Your task to perform on an android device: Open eBay Image 0: 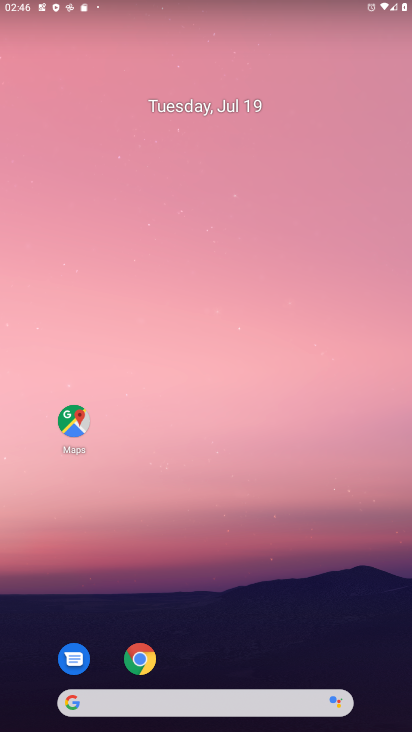
Step 0: click (123, 675)
Your task to perform on an android device: Open eBay Image 1: 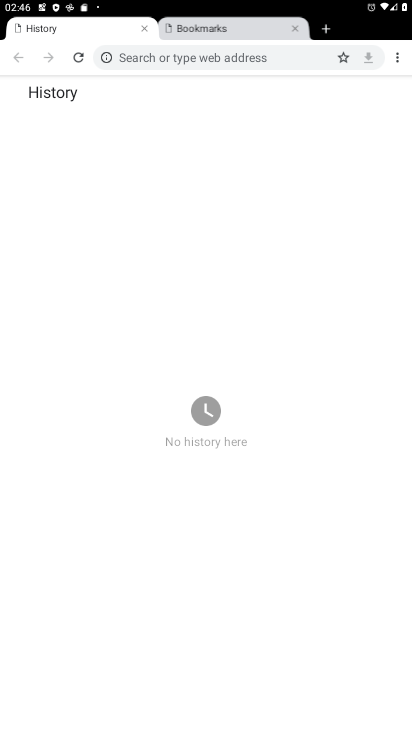
Step 1: click (239, 50)
Your task to perform on an android device: Open eBay Image 2: 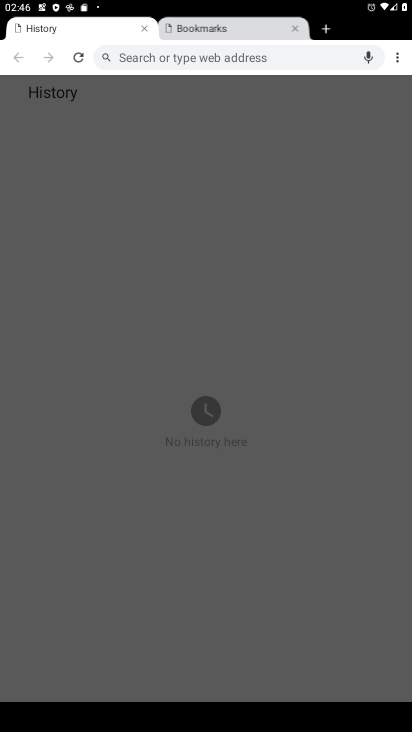
Step 2: type "eBay"
Your task to perform on an android device: Open eBay Image 3: 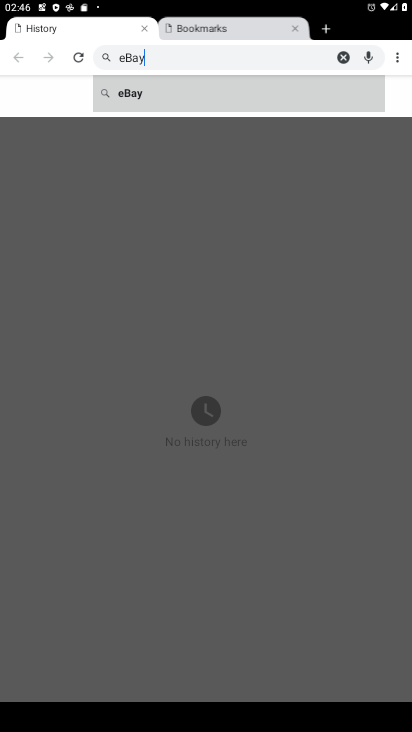
Step 3: type ""
Your task to perform on an android device: Open eBay Image 4: 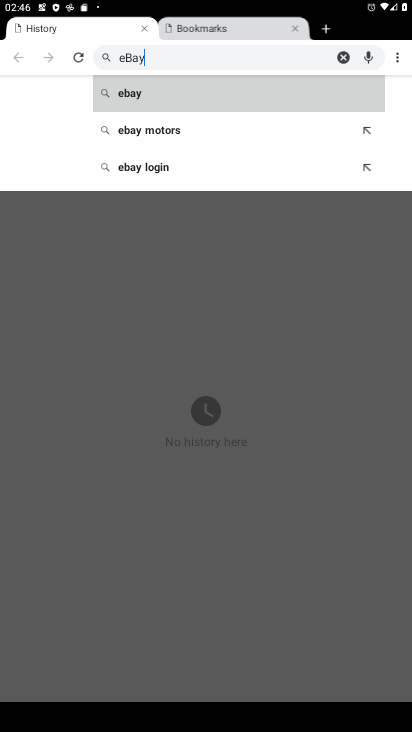
Step 4: click (135, 100)
Your task to perform on an android device: Open eBay Image 5: 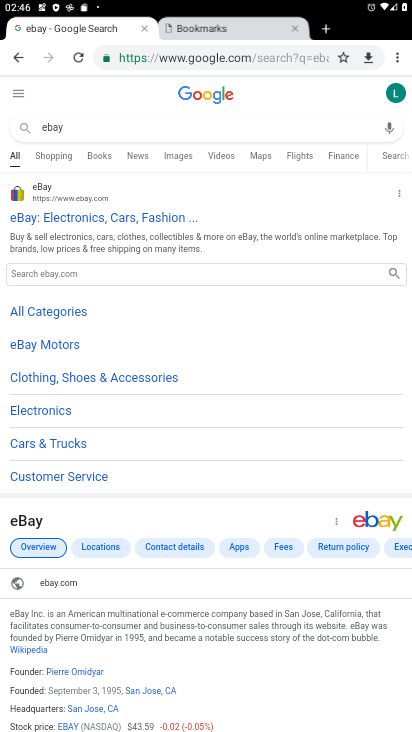
Step 5: click (84, 222)
Your task to perform on an android device: Open eBay Image 6: 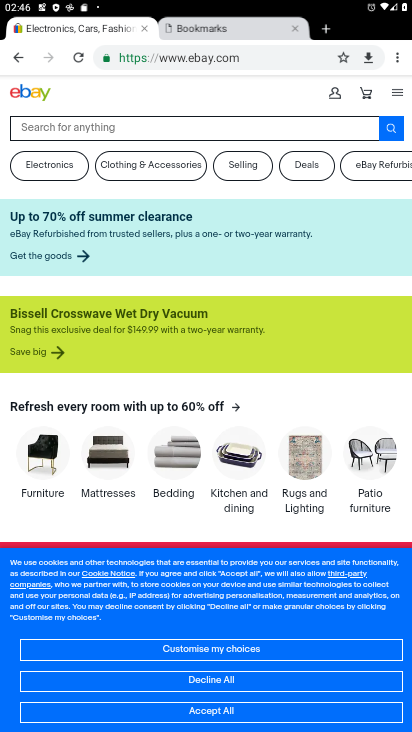
Step 6: task complete